Your task to perform on an android device: Search for Mexican restaurants on Maps Image 0: 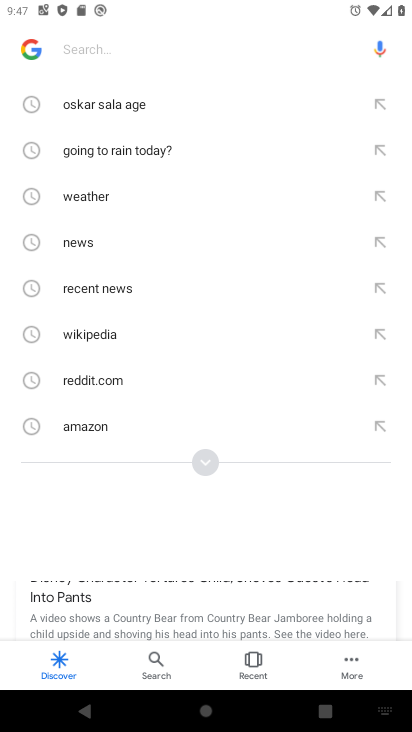
Step 0: press back button
Your task to perform on an android device: Search for Mexican restaurants on Maps Image 1: 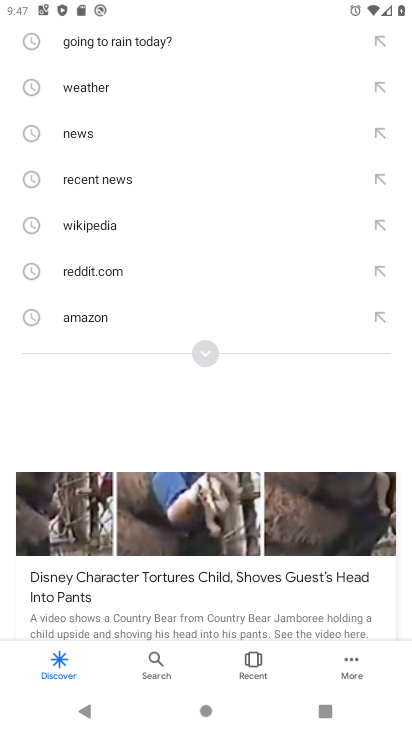
Step 1: press home button
Your task to perform on an android device: Search for Mexican restaurants on Maps Image 2: 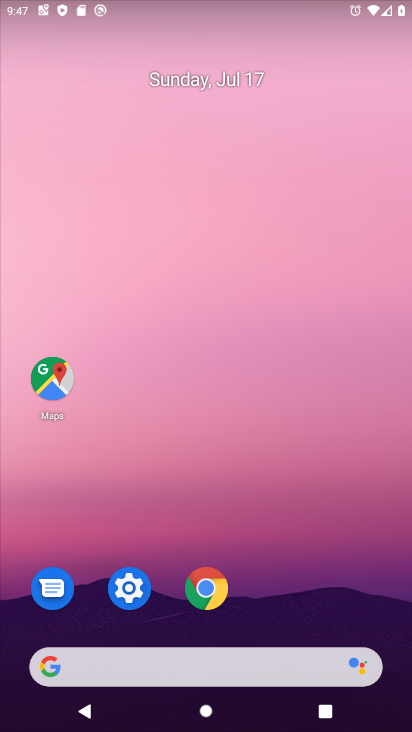
Step 2: drag from (259, 647) to (263, 3)
Your task to perform on an android device: Search for Mexican restaurants on Maps Image 3: 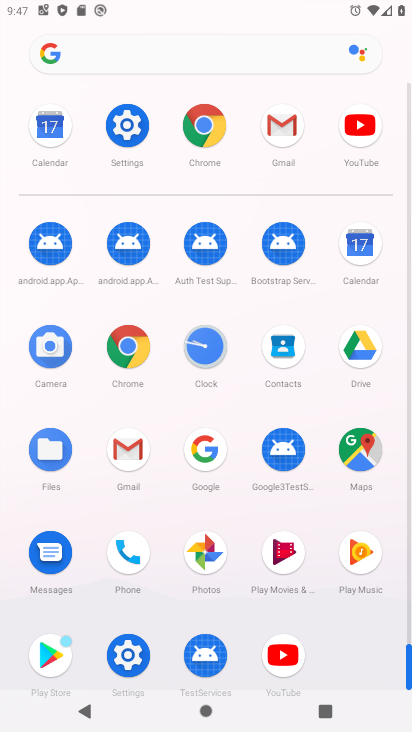
Step 3: click (365, 453)
Your task to perform on an android device: Search for Mexican restaurants on Maps Image 4: 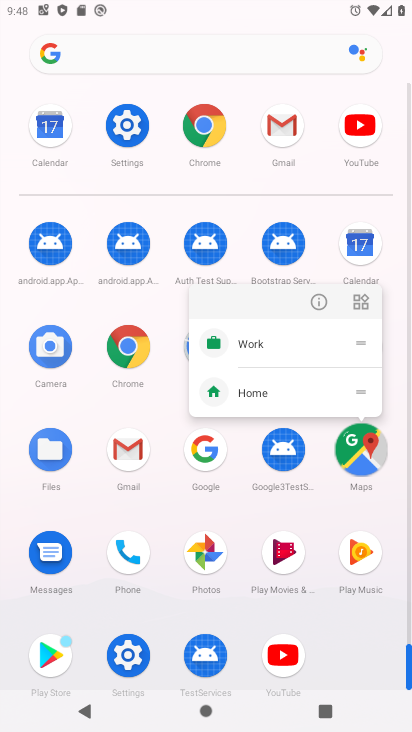
Step 4: click (378, 452)
Your task to perform on an android device: Search for Mexican restaurants on Maps Image 5: 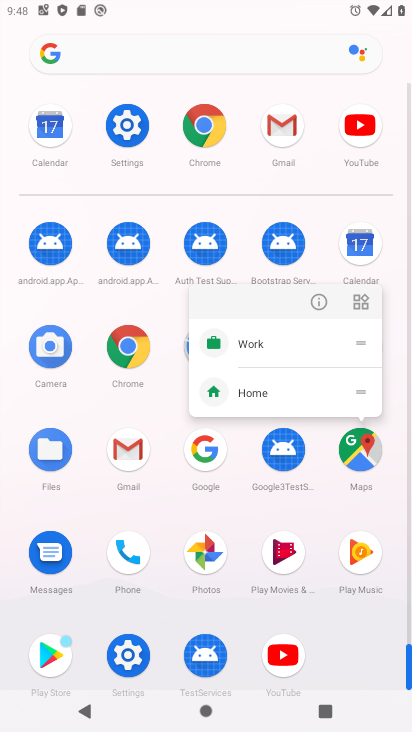
Step 5: click (379, 448)
Your task to perform on an android device: Search for Mexican restaurants on Maps Image 6: 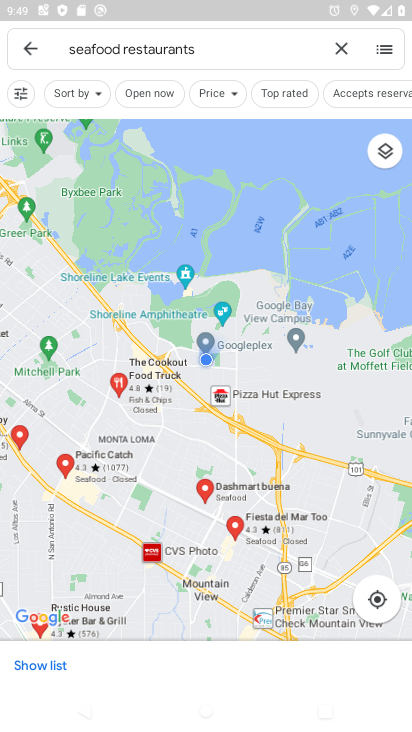
Step 6: drag from (201, 565) to (108, 14)
Your task to perform on an android device: Search for Mexican restaurants on Maps Image 7: 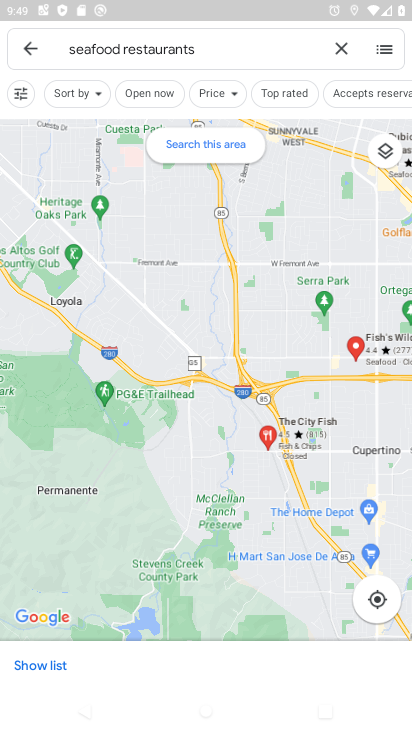
Step 7: click (337, 45)
Your task to perform on an android device: Search for Mexican restaurants on Maps Image 8: 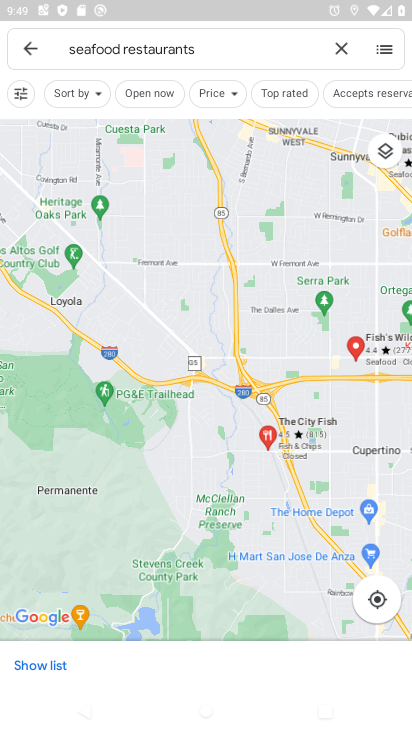
Step 8: click (217, 51)
Your task to perform on an android device: Search for Mexican restaurants on Maps Image 9: 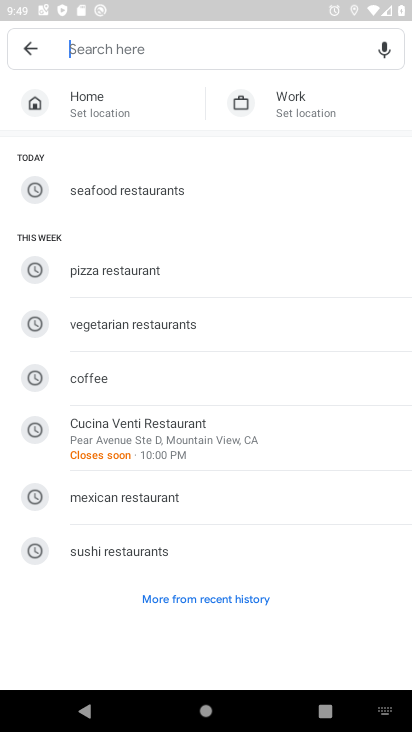
Step 9: type "mexican restaurants"
Your task to perform on an android device: Search for Mexican restaurants on Maps Image 10: 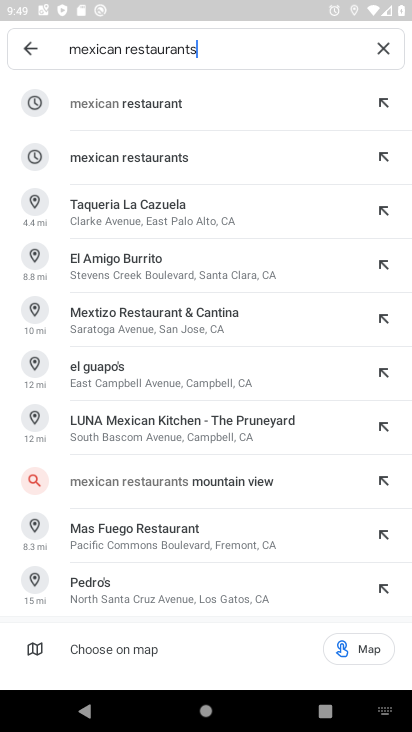
Step 10: click (161, 151)
Your task to perform on an android device: Search for Mexican restaurants on Maps Image 11: 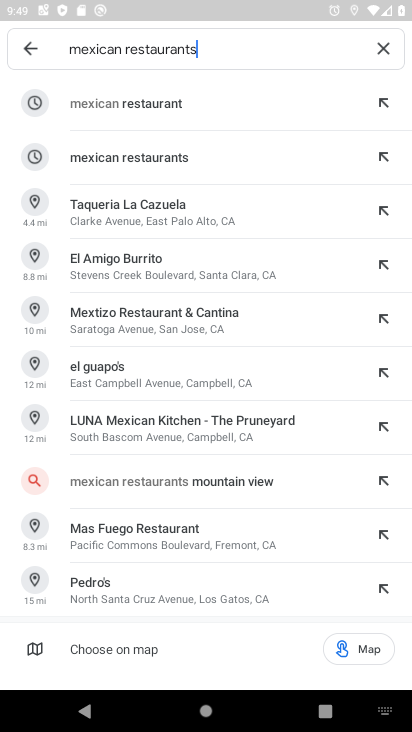
Step 11: click (175, 157)
Your task to perform on an android device: Search for Mexican restaurants on Maps Image 12: 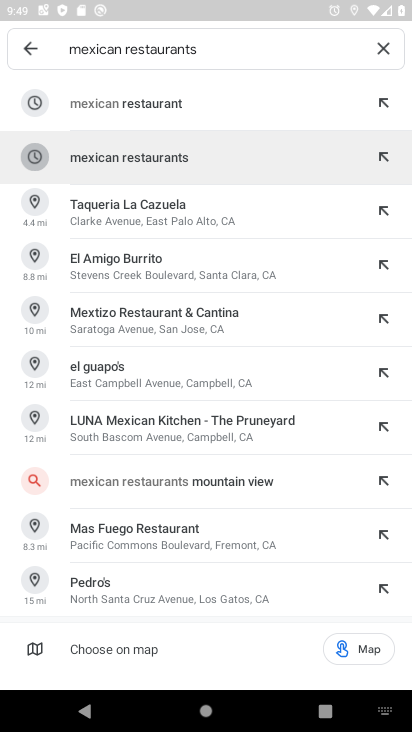
Step 12: click (176, 157)
Your task to perform on an android device: Search for Mexican restaurants on Maps Image 13: 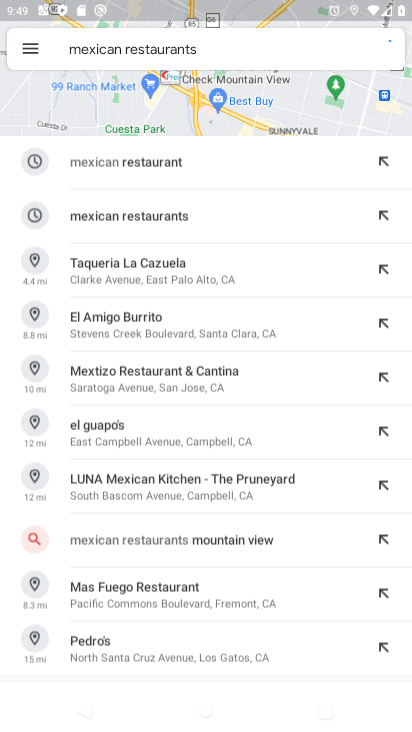
Step 13: click (180, 167)
Your task to perform on an android device: Search for Mexican restaurants on Maps Image 14: 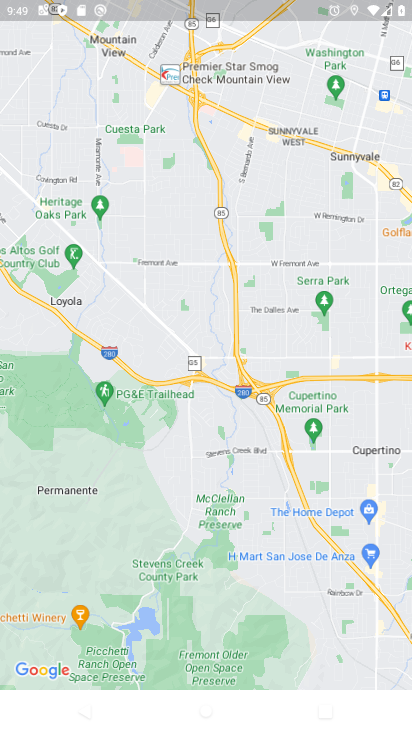
Step 14: task complete